Your task to perform on an android device: Open Youtube and go to "Your channel" Image 0: 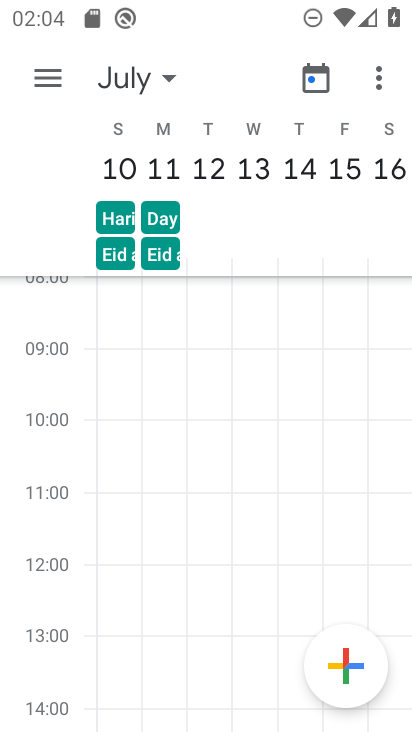
Step 0: press home button
Your task to perform on an android device: Open Youtube and go to "Your channel" Image 1: 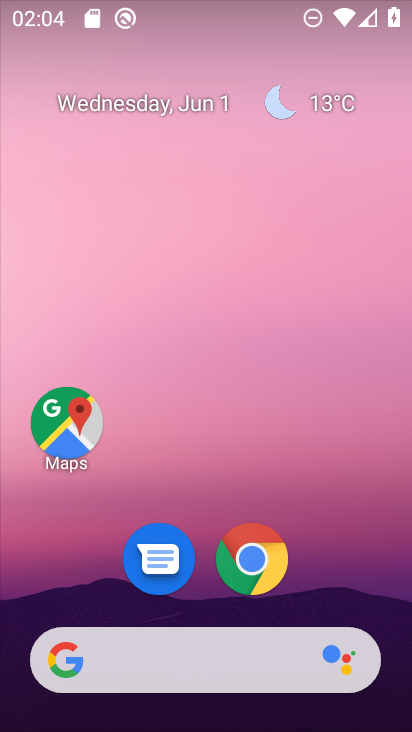
Step 1: drag from (388, 672) to (353, 207)
Your task to perform on an android device: Open Youtube and go to "Your channel" Image 2: 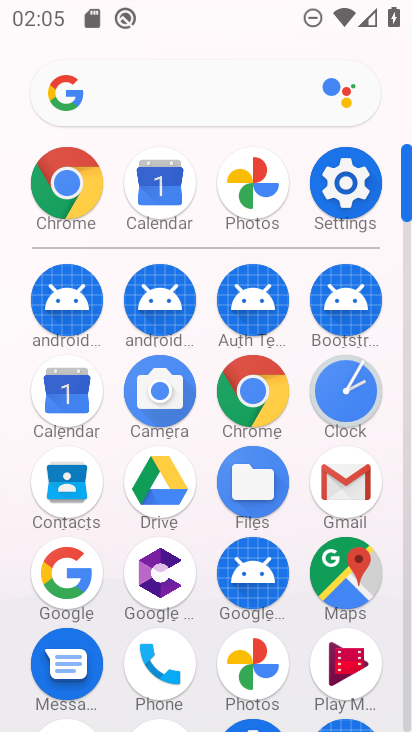
Step 2: drag from (296, 685) to (267, 284)
Your task to perform on an android device: Open Youtube and go to "Your channel" Image 3: 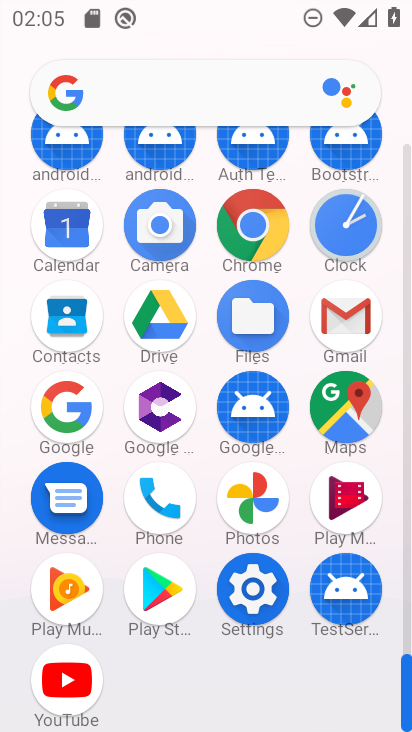
Step 3: click (80, 680)
Your task to perform on an android device: Open Youtube and go to "Your channel" Image 4: 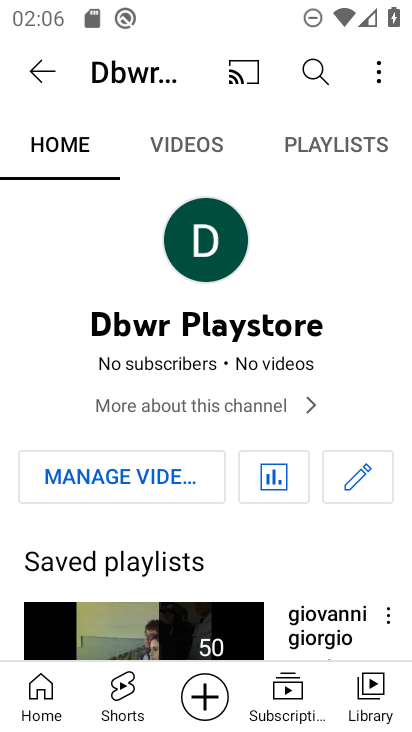
Step 4: task complete